Your task to perform on an android device: Open Chrome and go to the settings page Image 0: 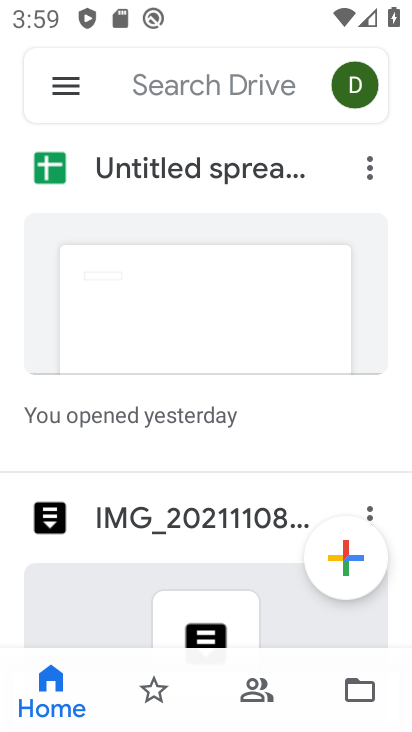
Step 0: press home button
Your task to perform on an android device: Open Chrome and go to the settings page Image 1: 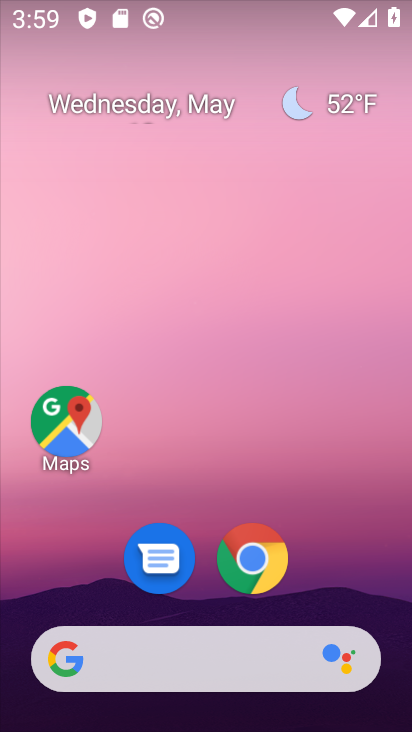
Step 1: click (258, 562)
Your task to perform on an android device: Open Chrome and go to the settings page Image 2: 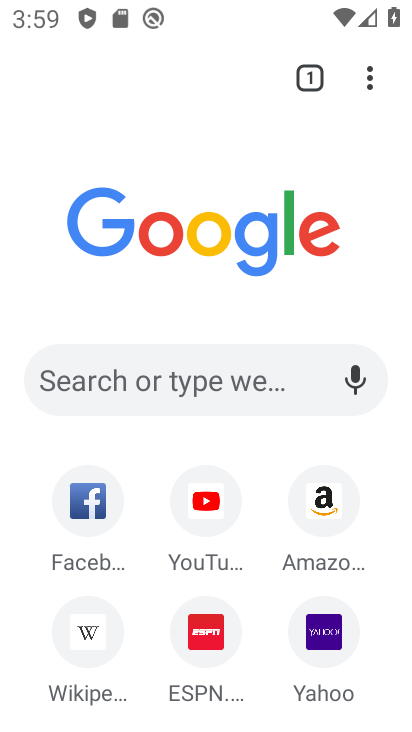
Step 2: task complete